Your task to perform on an android device: set an alarm Image 0: 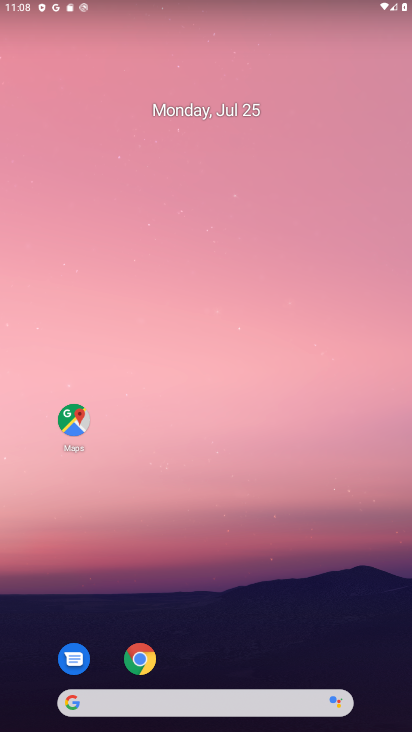
Step 0: drag from (236, 630) to (156, 149)
Your task to perform on an android device: set an alarm Image 1: 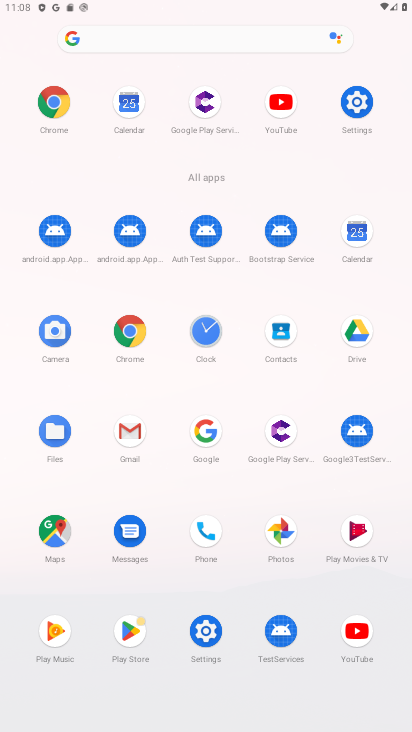
Step 1: click (204, 334)
Your task to perform on an android device: set an alarm Image 2: 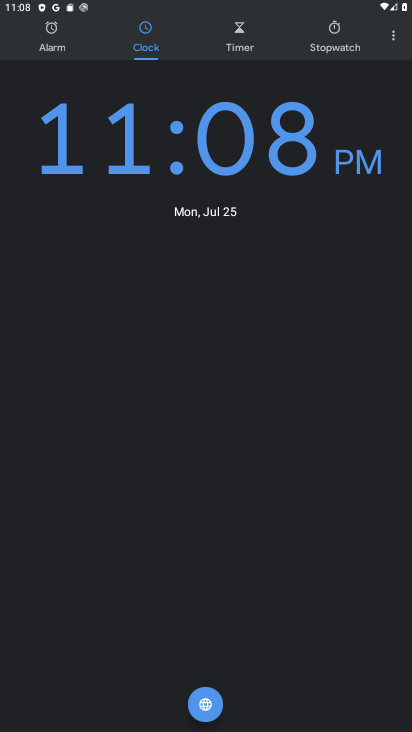
Step 2: click (53, 51)
Your task to perform on an android device: set an alarm Image 3: 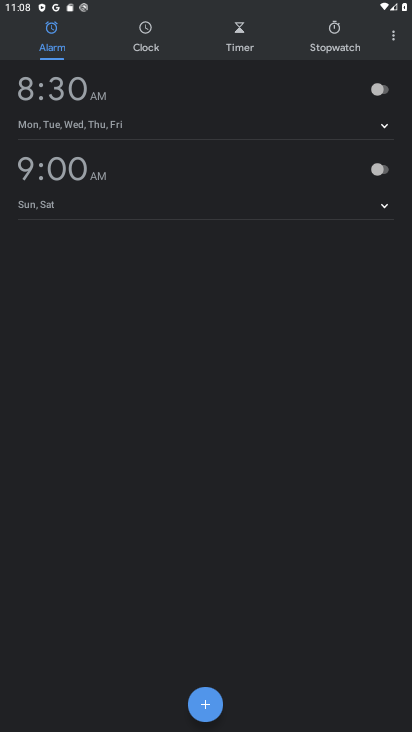
Step 3: click (201, 708)
Your task to perform on an android device: set an alarm Image 4: 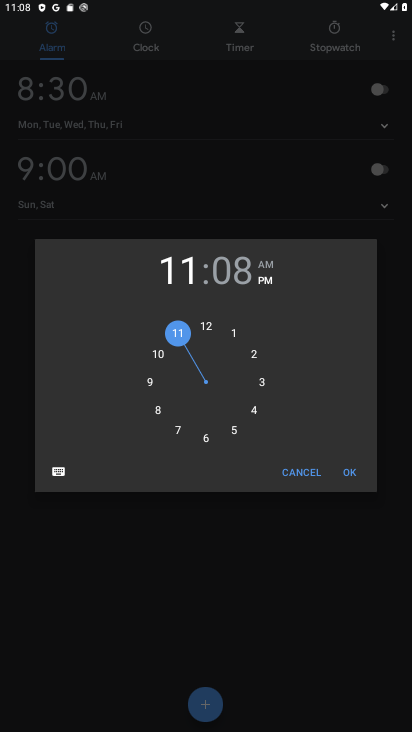
Step 4: click (348, 475)
Your task to perform on an android device: set an alarm Image 5: 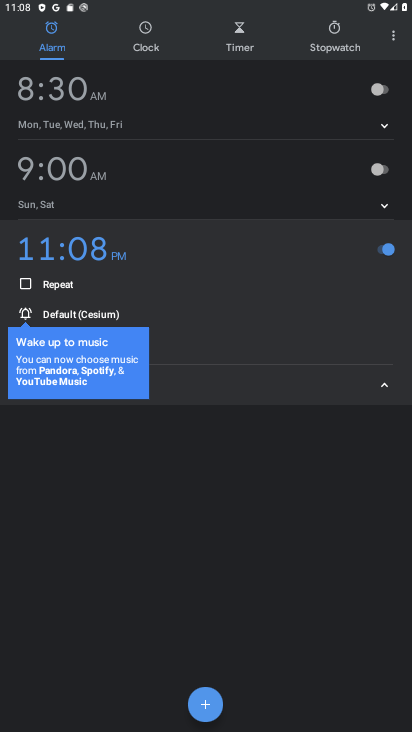
Step 5: task complete